Your task to perform on an android device: Open eBay Image 0: 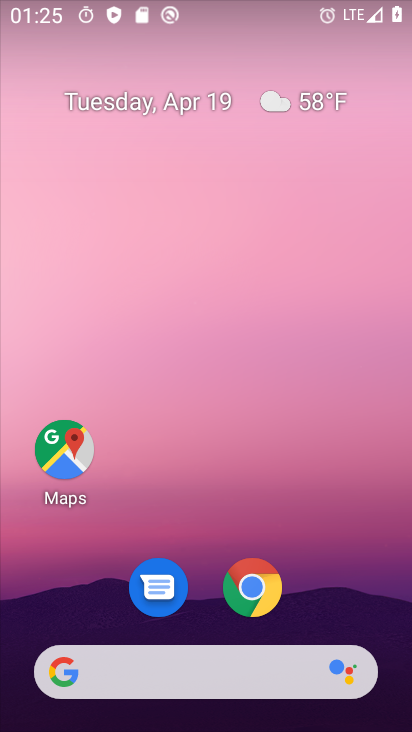
Step 0: click (259, 587)
Your task to perform on an android device: Open eBay Image 1: 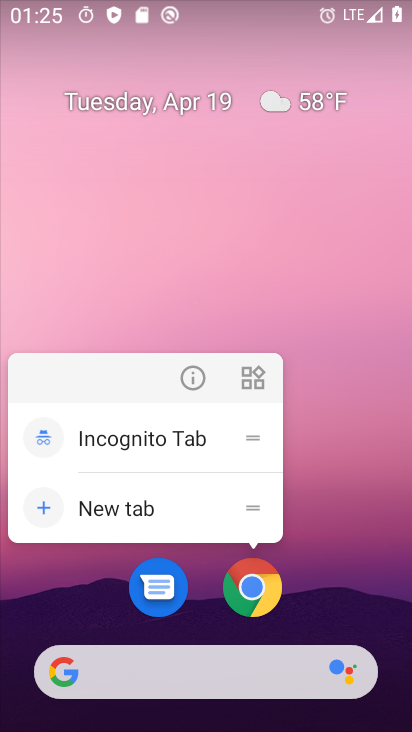
Step 1: click (272, 590)
Your task to perform on an android device: Open eBay Image 2: 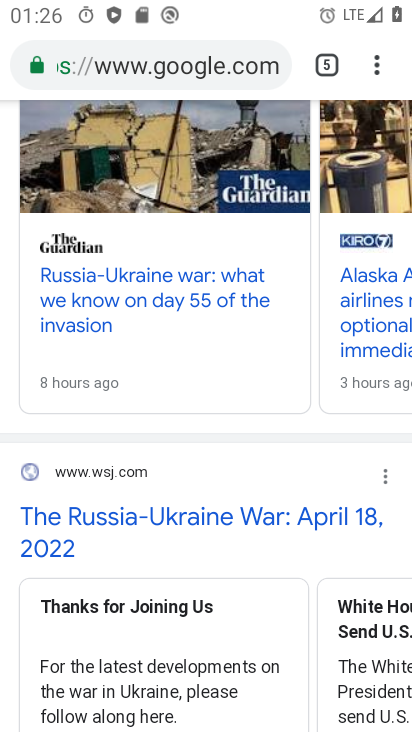
Step 2: click (334, 60)
Your task to perform on an android device: Open eBay Image 3: 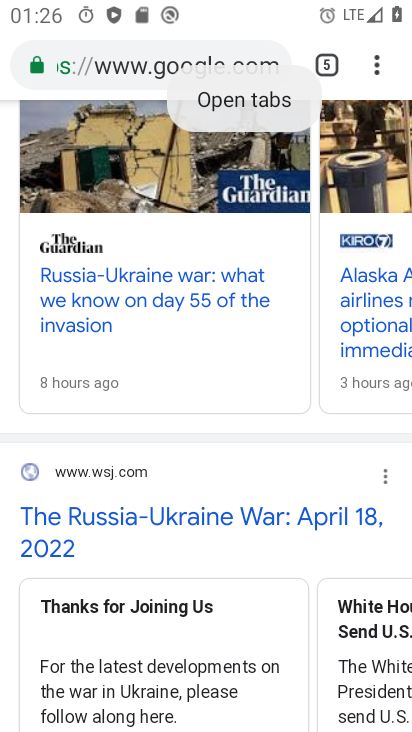
Step 3: click (222, 101)
Your task to perform on an android device: Open eBay Image 4: 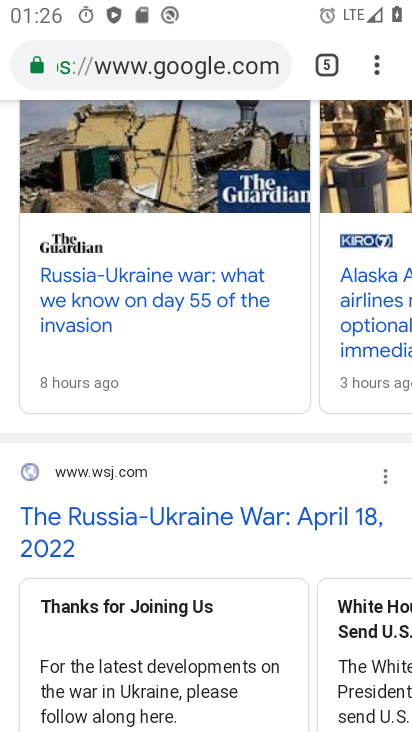
Step 4: click (324, 60)
Your task to perform on an android device: Open eBay Image 5: 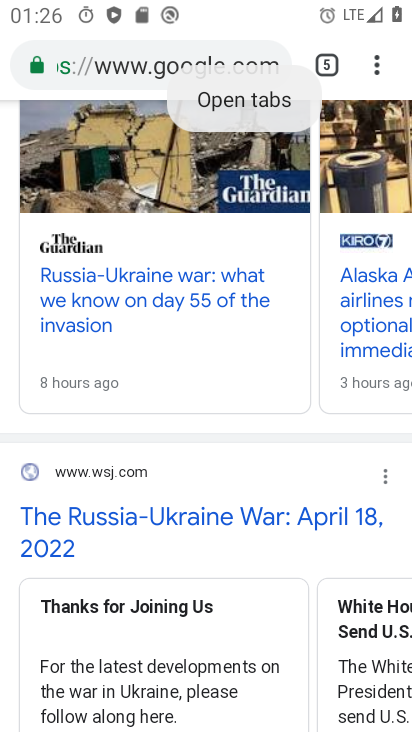
Step 5: click (326, 66)
Your task to perform on an android device: Open eBay Image 6: 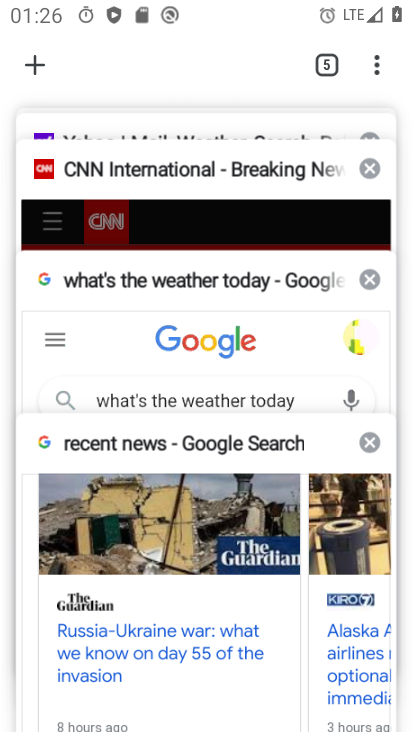
Step 6: click (29, 66)
Your task to perform on an android device: Open eBay Image 7: 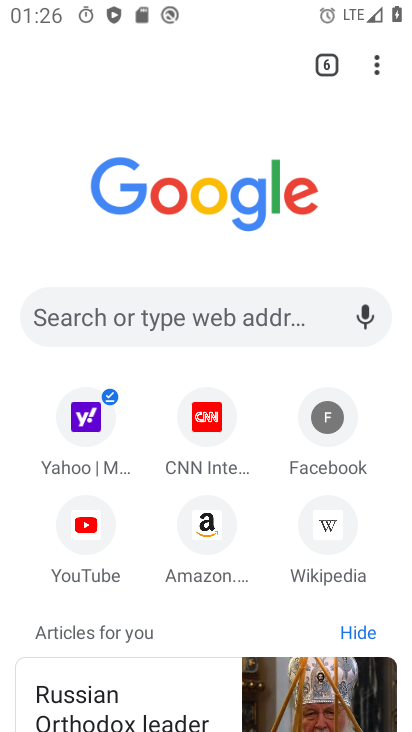
Step 7: click (217, 311)
Your task to perform on an android device: Open eBay Image 8: 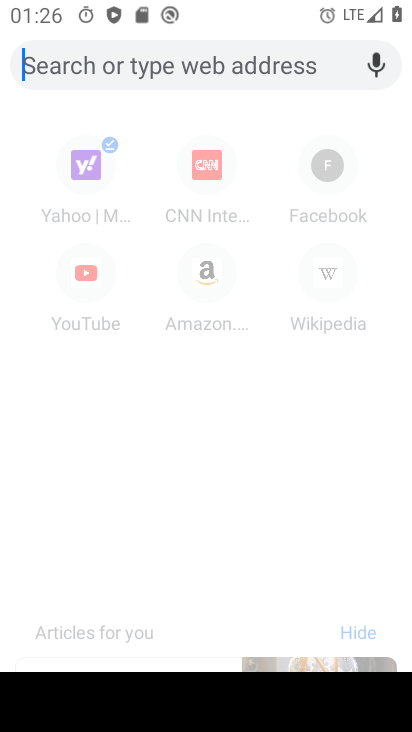
Step 8: type "ebay"
Your task to perform on an android device: Open eBay Image 9: 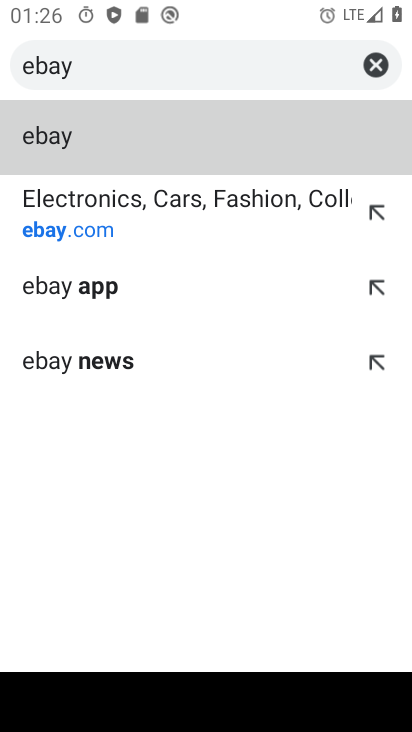
Step 9: click (87, 200)
Your task to perform on an android device: Open eBay Image 10: 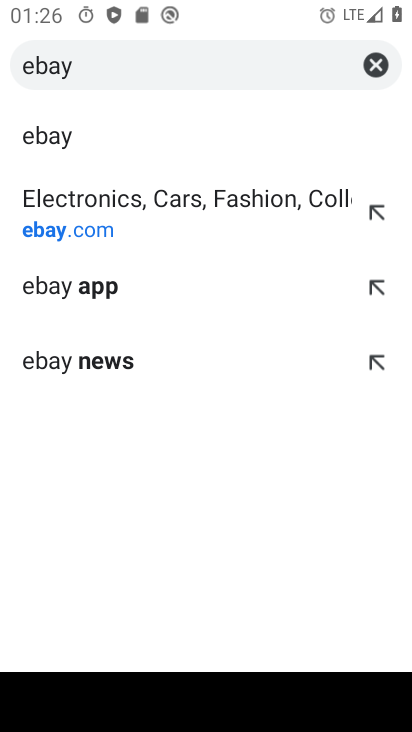
Step 10: click (83, 202)
Your task to perform on an android device: Open eBay Image 11: 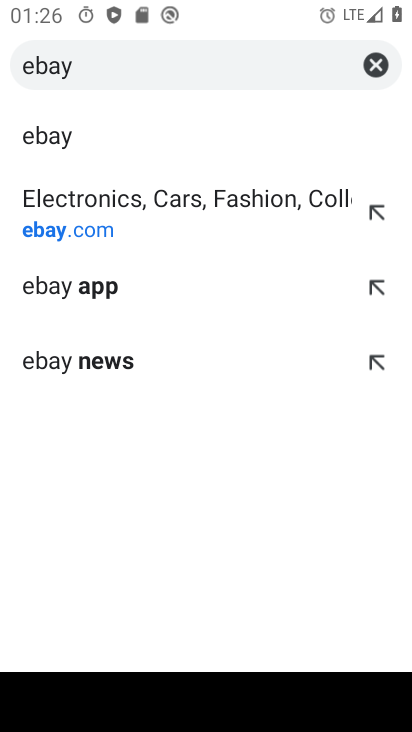
Step 11: click (70, 231)
Your task to perform on an android device: Open eBay Image 12: 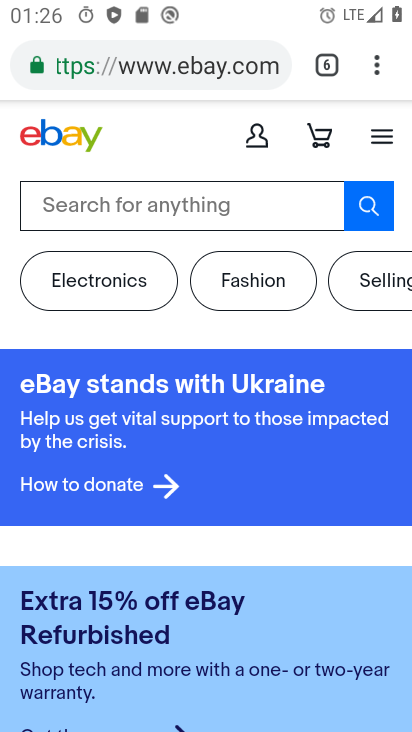
Step 12: task complete